Your task to perform on an android device: change the clock display to digital Image 0: 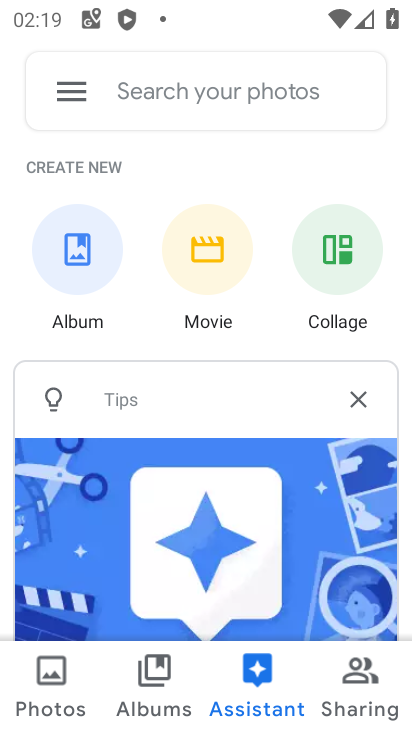
Step 0: press home button
Your task to perform on an android device: change the clock display to digital Image 1: 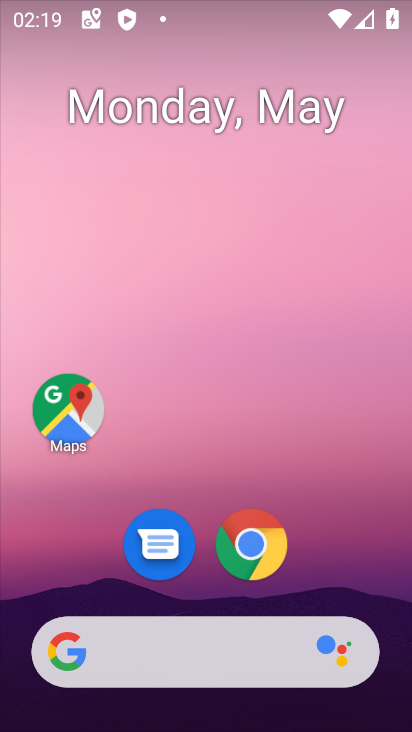
Step 1: drag from (371, 566) to (374, 269)
Your task to perform on an android device: change the clock display to digital Image 2: 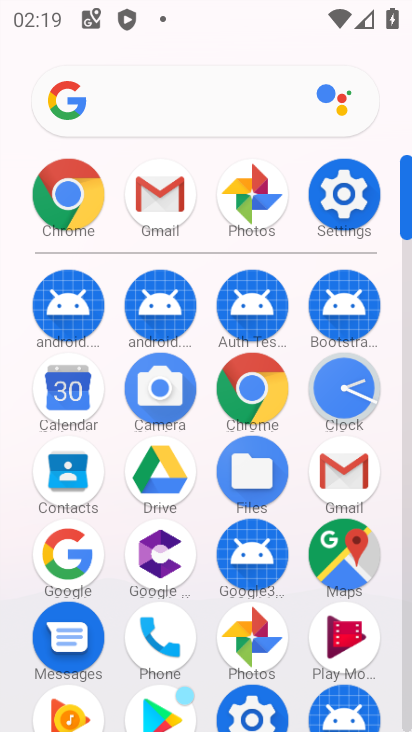
Step 2: click (365, 407)
Your task to perform on an android device: change the clock display to digital Image 3: 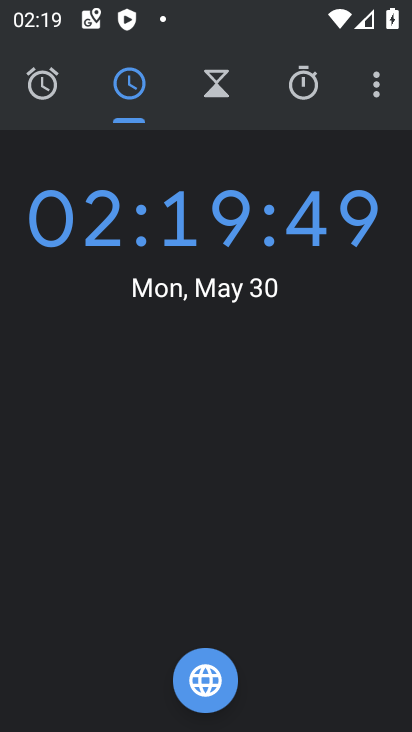
Step 3: click (376, 102)
Your task to perform on an android device: change the clock display to digital Image 4: 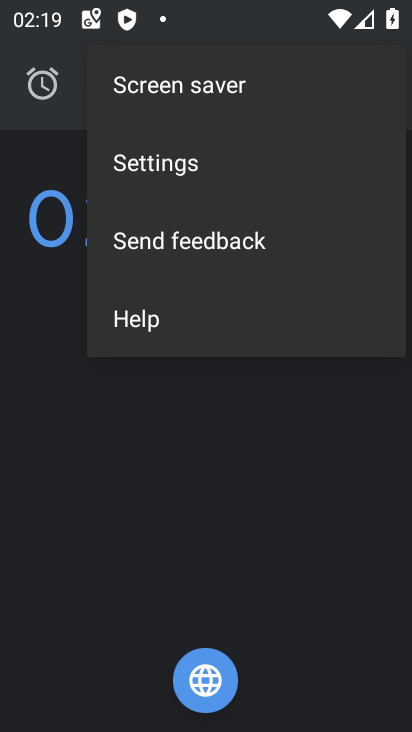
Step 4: click (239, 166)
Your task to perform on an android device: change the clock display to digital Image 5: 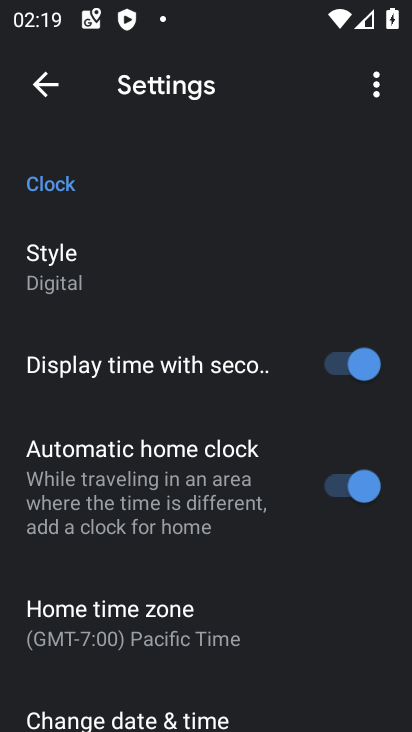
Step 5: task complete